Your task to perform on an android device: toggle location history Image 0: 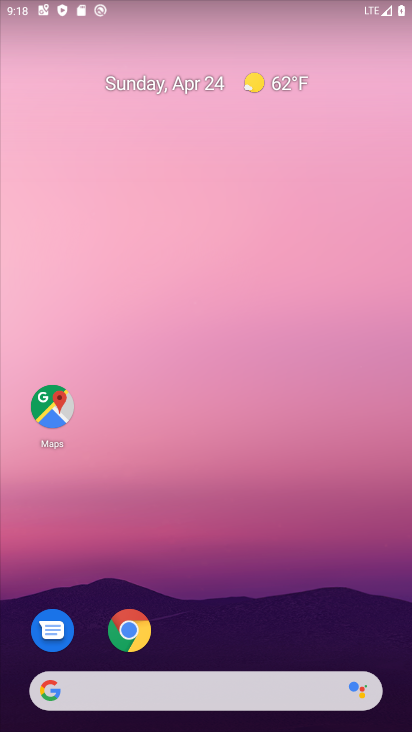
Step 0: drag from (363, 619) to (330, 101)
Your task to perform on an android device: toggle location history Image 1: 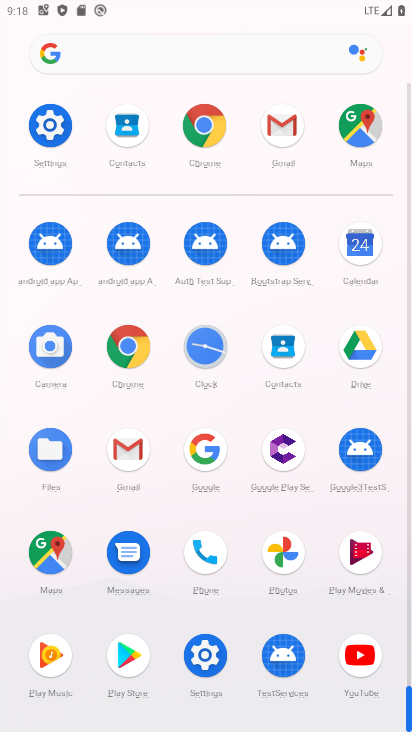
Step 1: drag from (13, 524) to (8, 262)
Your task to perform on an android device: toggle location history Image 2: 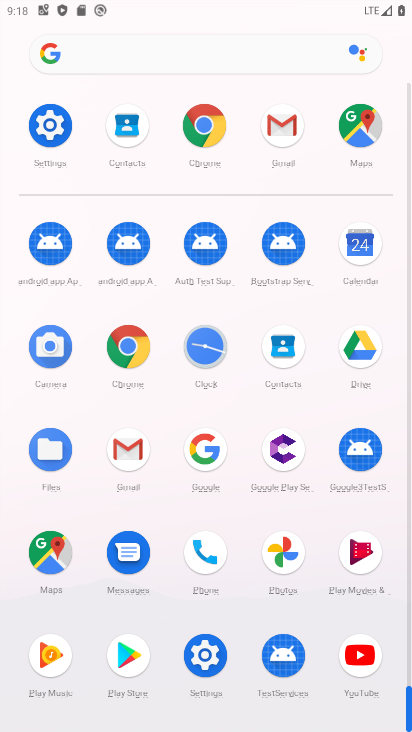
Step 2: click (211, 653)
Your task to perform on an android device: toggle location history Image 3: 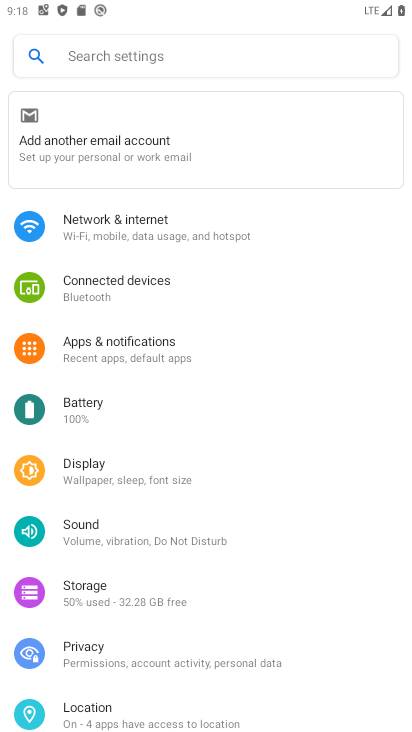
Step 3: drag from (237, 605) to (230, 242)
Your task to perform on an android device: toggle location history Image 4: 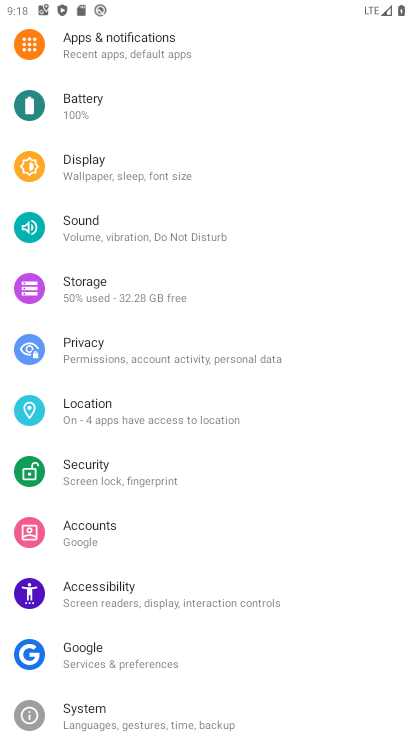
Step 4: drag from (301, 162) to (294, 553)
Your task to perform on an android device: toggle location history Image 5: 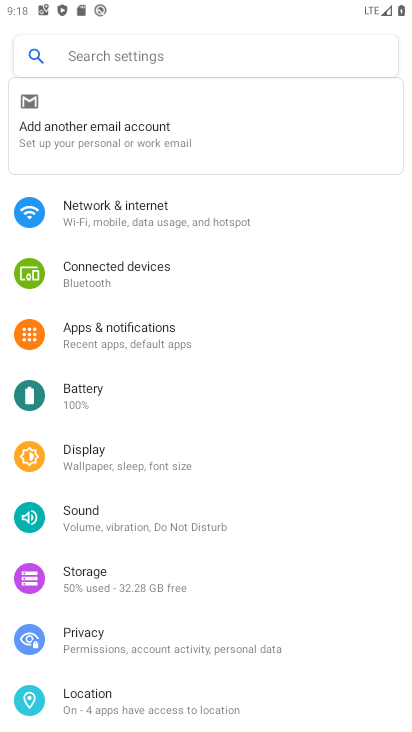
Step 5: drag from (235, 541) to (231, 256)
Your task to perform on an android device: toggle location history Image 6: 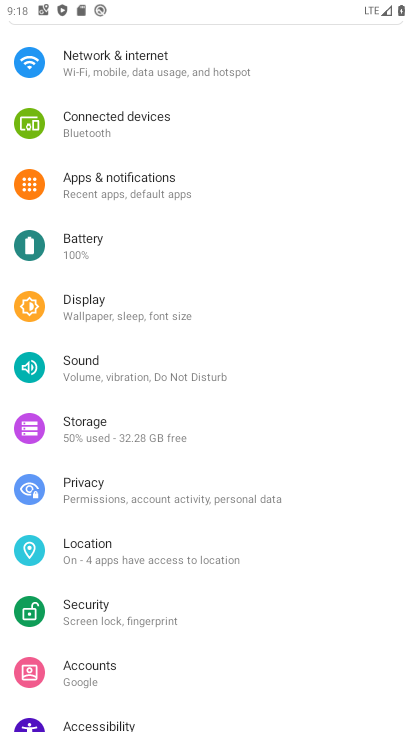
Step 6: drag from (265, 598) to (271, 210)
Your task to perform on an android device: toggle location history Image 7: 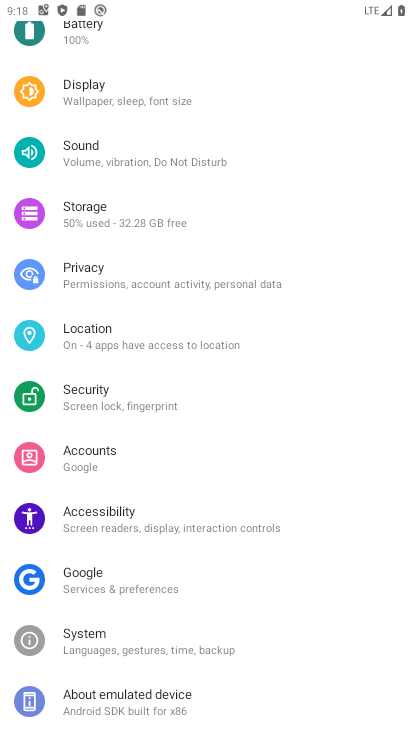
Step 7: drag from (221, 240) to (221, 581)
Your task to perform on an android device: toggle location history Image 8: 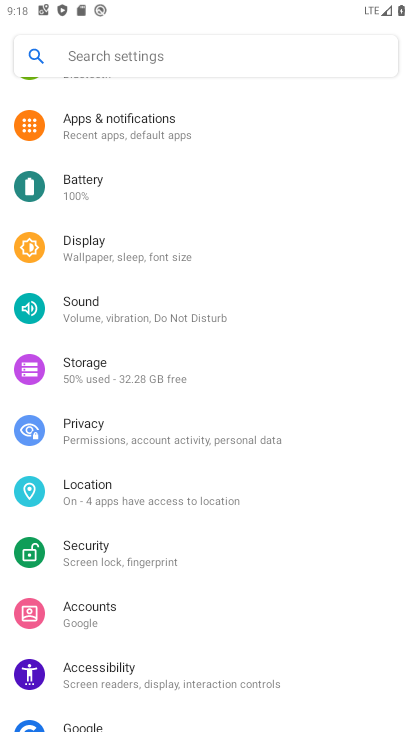
Step 8: drag from (246, 215) to (247, 554)
Your task to perform on an android device: toggle location history Image 9: 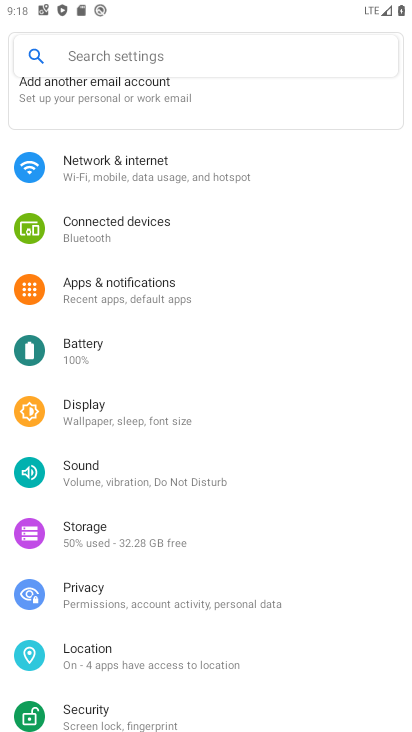
Step 9: drag from (265, 524) to (271, 246)
Your task to perform on an android device: toggle location history Image 10: 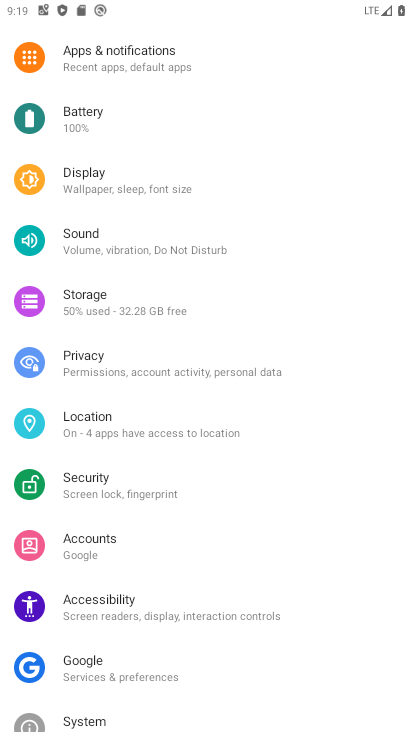
Step 10: drag from (244, 487) to (248, 125)
Your task to perform on an android device: toggle location history Image 11: 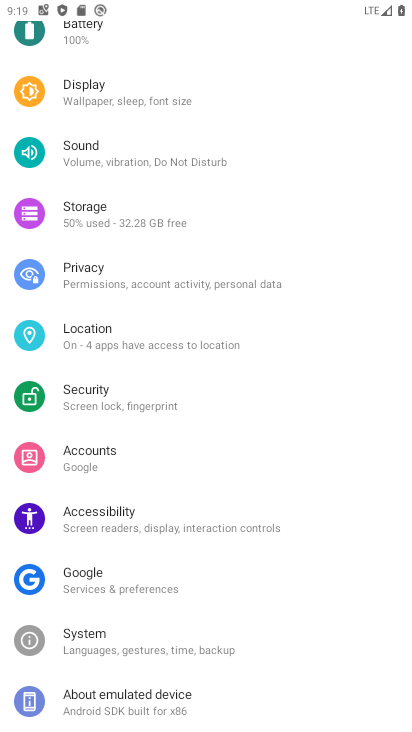
Step 11: click (137, 337)
Your task to perform on an android device: toggle location history Image 12: 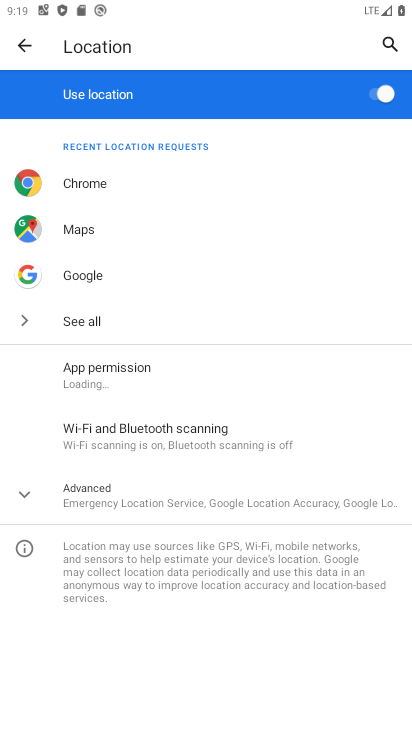
Step 12: click (28, 494)
Your task to perform on an android device: toggle location history Image 13: 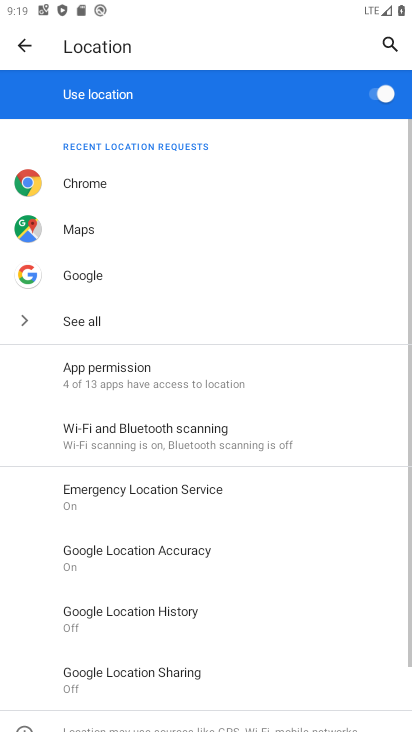
Step 13: drag from (316, 610) to (287, 284)
Your task to perform on an android device: toggle location history Image 14: 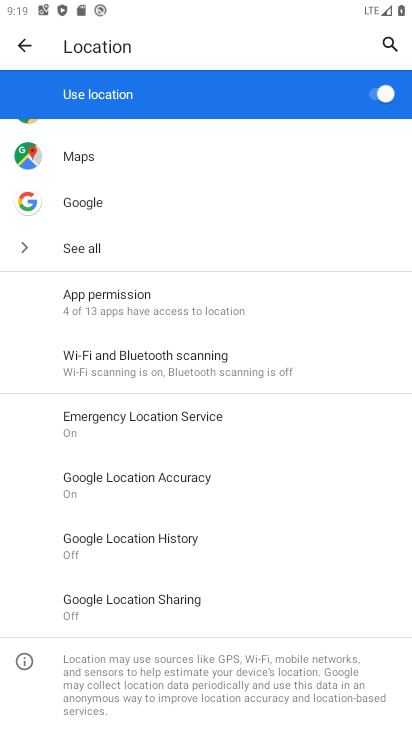
Step 14: click (187, 529)
Your task to perform on an android device: toggle location history Image 15: 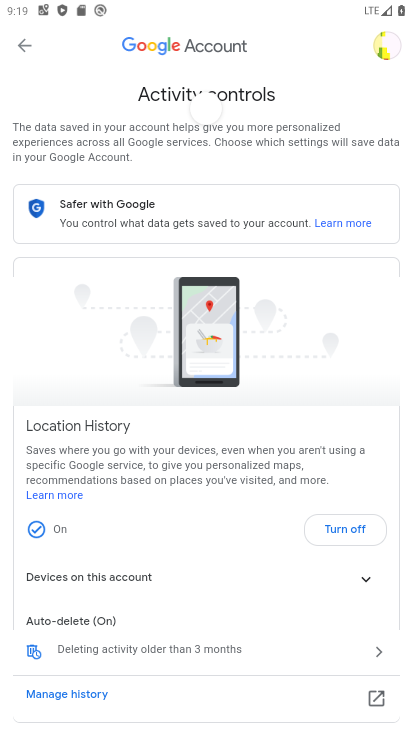
Step 15: drag from (224, 507) to (282, 130)
Your task to perform on an android device: toggle location history Image 16: 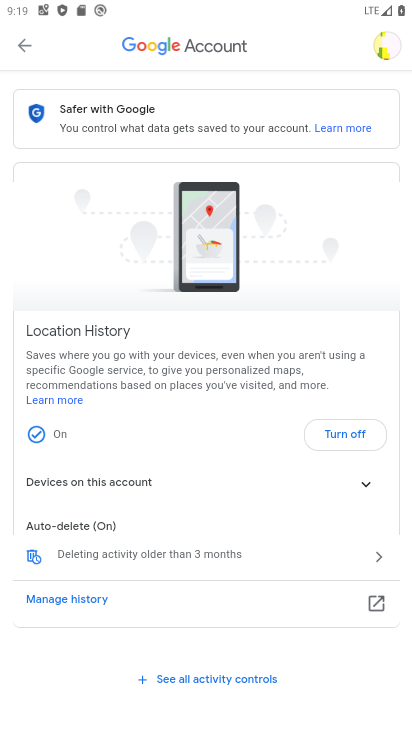
Step 16: click (329, 435)
Your task to perform on an android device: toggle location history Image 17: 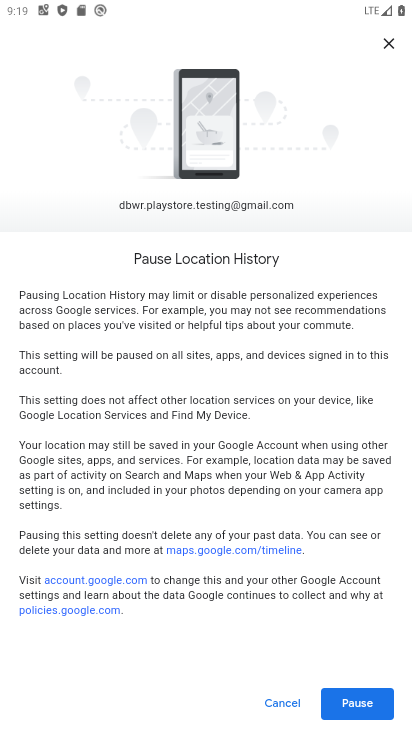
Step 17: click (350, 697)
Your task to perform on an android device: toggle location history Image 18: 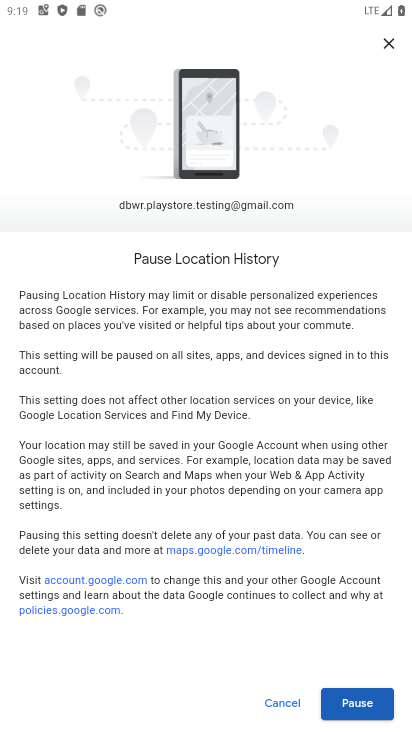
Step 18: click (350, 697)
Your task to perform on an android device: toggle location history Image 19: 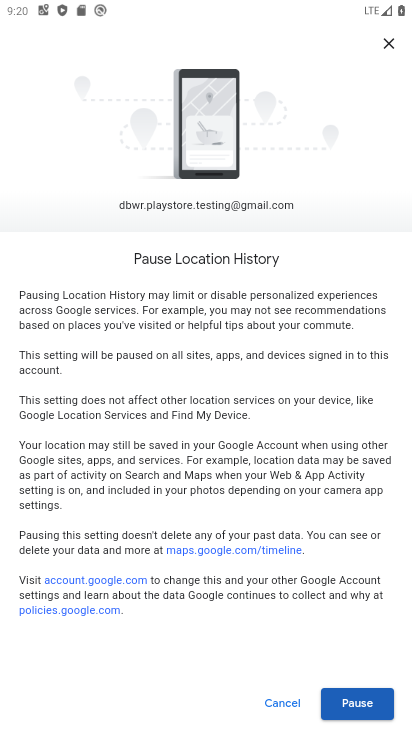
Step 19: click (355, 712)
Your task to perform on an android device: toggle location history Image 20: 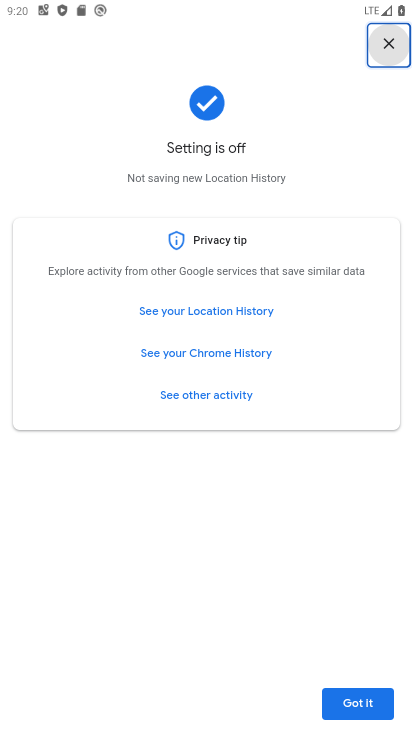
Step 20: click (381, 708)
Your task to perform on an android device: toggle location history Image 21: 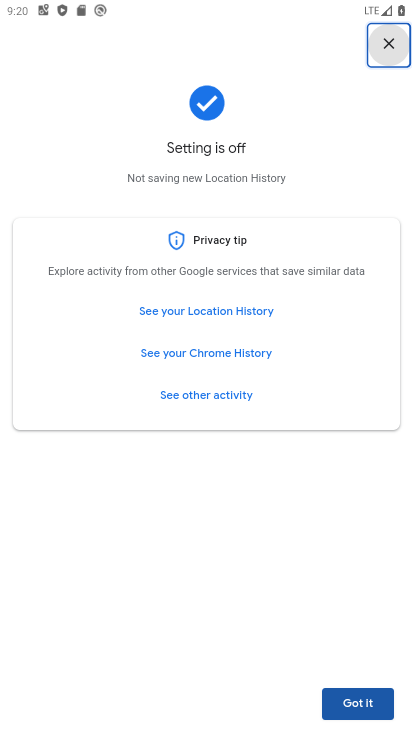
Step 21: task complete